Your task to perform on an android device: turn off improve location accuracy Image 0: 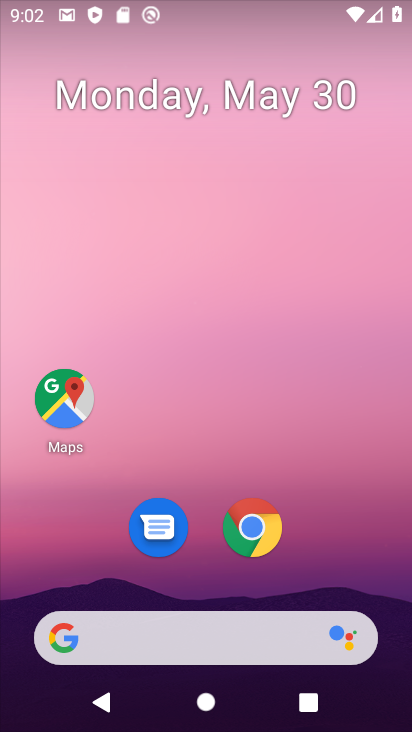
Step 0: drag from (196, 592) to (226, 13)
Your task to perform on an android device: turn off improve location accuracy Image 1: 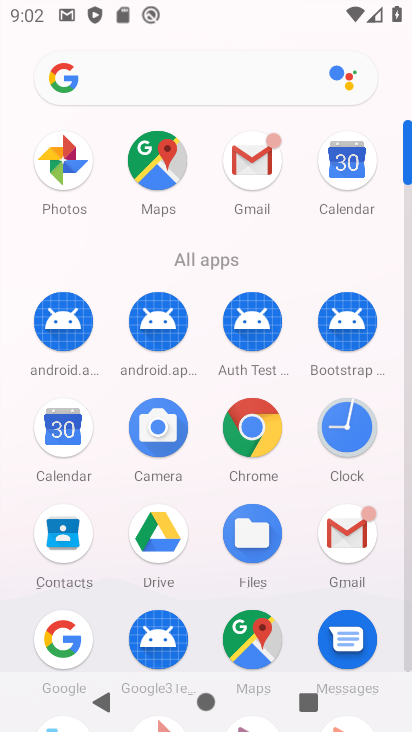
Step 1: drag from (194, 504) to (189, 81)
Your task to perform on an android device: turn off improve location accuracy Image 2: 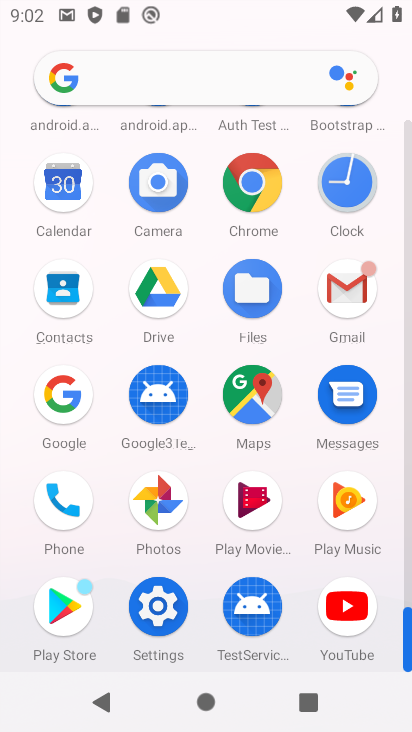
Step 2: click (151, 607)
Your task to perform on an android device: turn off improve location accuracy Image 3: 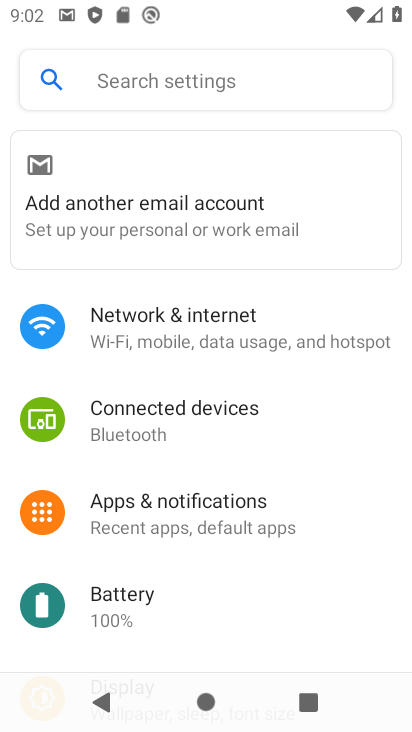
Step 3: drag from (179, 584) to (187, 179)
Your task to perform on an android device: turn off improve location accuracy Image 4: 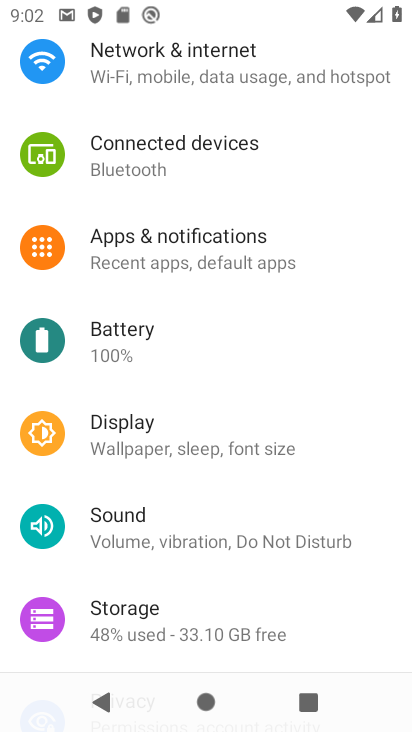
Step 4: drag from (155, 537) to (130, 286)
Your task to perform on an android device: turn off improve location accuracy Image 5: 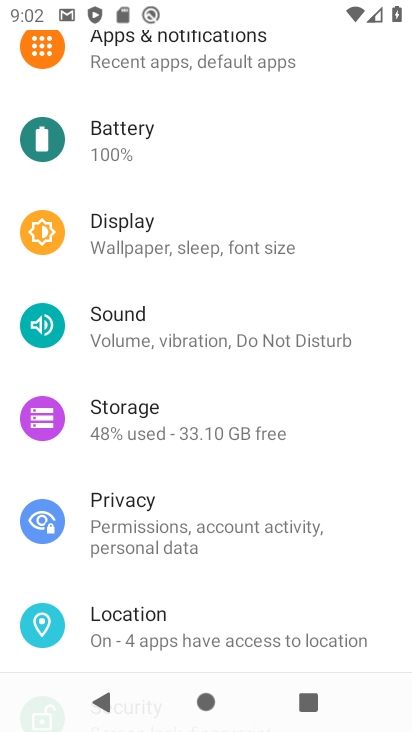
Step 5: click (130, 608)
Your task to perform on an android device: turn off improve location accuracy Image 6: 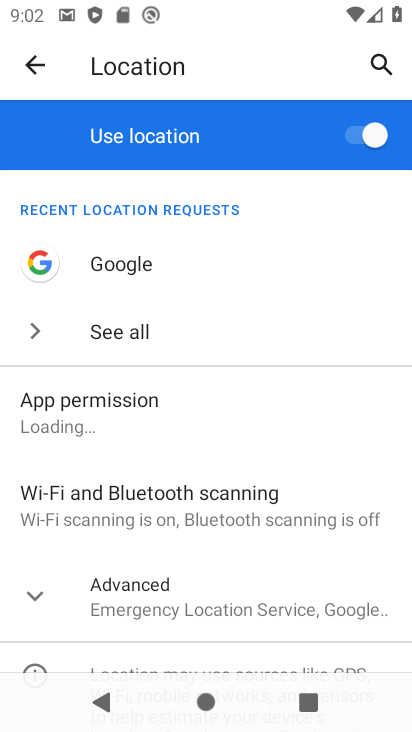
Step 6: click (159, 607)
Your task to perform on an android device: turn off improve location accuracy Image 7: 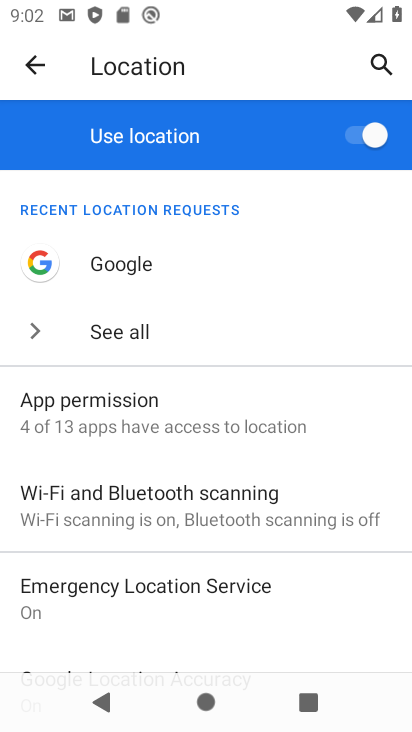
Step 7: drag from (156, 609) to (156, 198)
Your task to perform on an android device: turn off improve location accuracy Image 8: 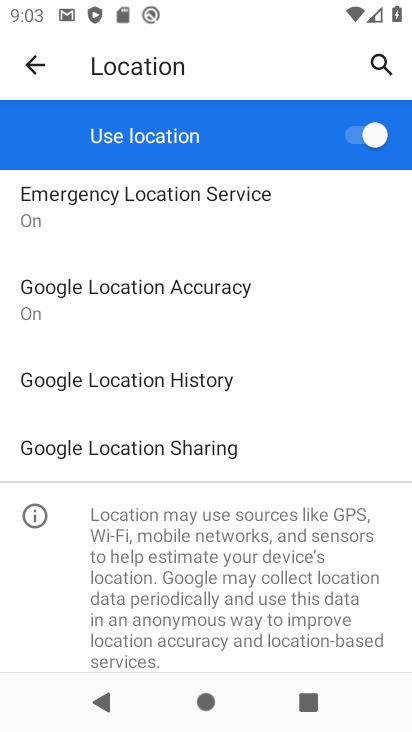
Step 8: click (144, 280)
Your task to perform on an android device: turn off improve location accuracy Image 9: 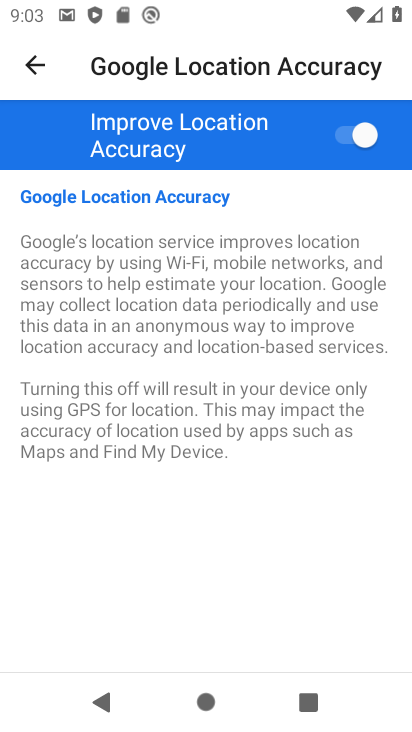
Step 9: click (356, 148)
Your task to perform on an android device: turn off improve location accuracy Image 10: 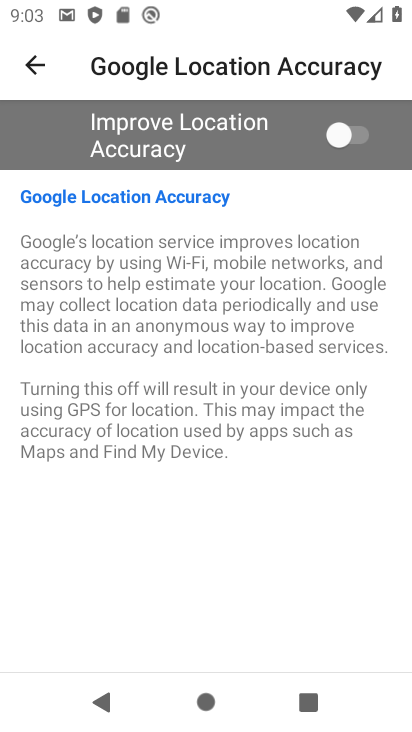
Step 10: task complete